Your task to perform on an android device: Open Chrome and go to settings Image 0: 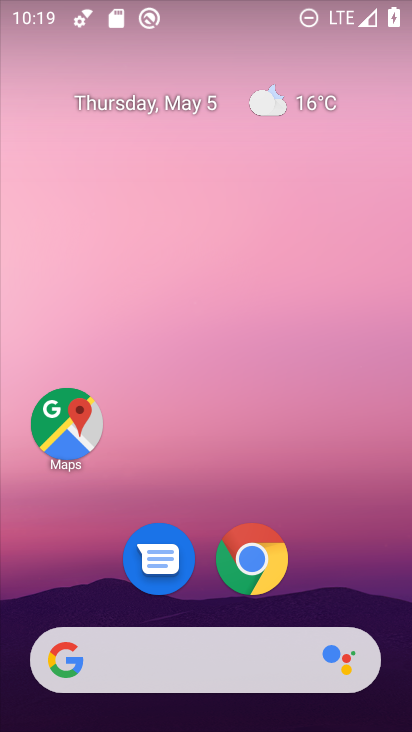
Step 0: drag from (388, 643) to (320, 76)
Your task to perform on an android device: Open Chrome and go to settings Image 1: 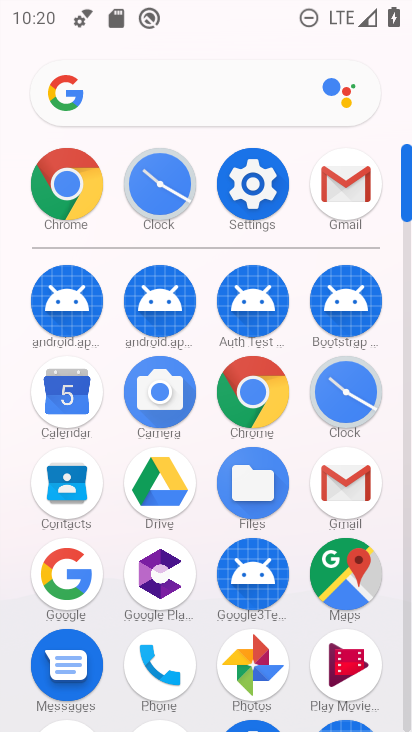
Step 1: click (265, 380)
Your task to perform on an android device: Open Chrome and go to settings Image 2: 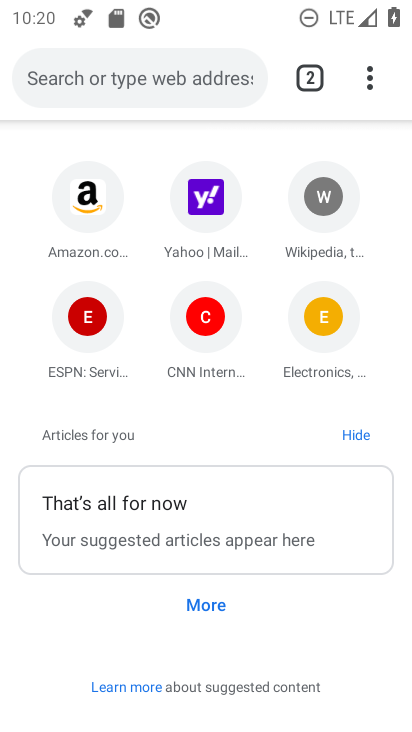
Step 2: click (364, 78)
Your task to perform on an android device: Open Chrome and go to settings Image 3: 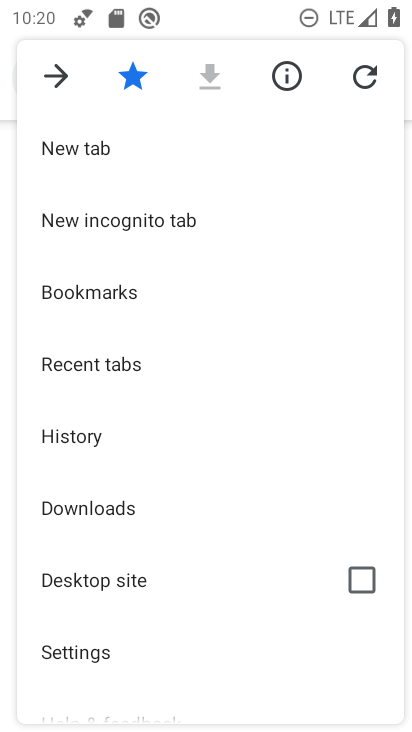
Step 3: click (137, 650)
Your task to perform on an android device: Open Chrome and go to settings Image 4: 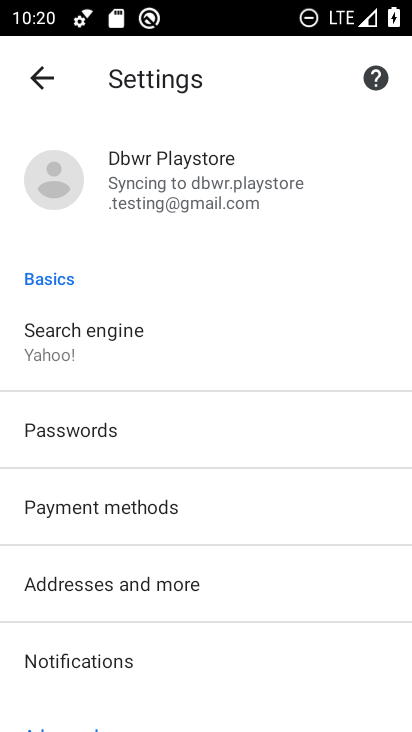
Step 4: task complete